Your task to perform on an android device: turn on showing notifications on the lock screen Image 0: 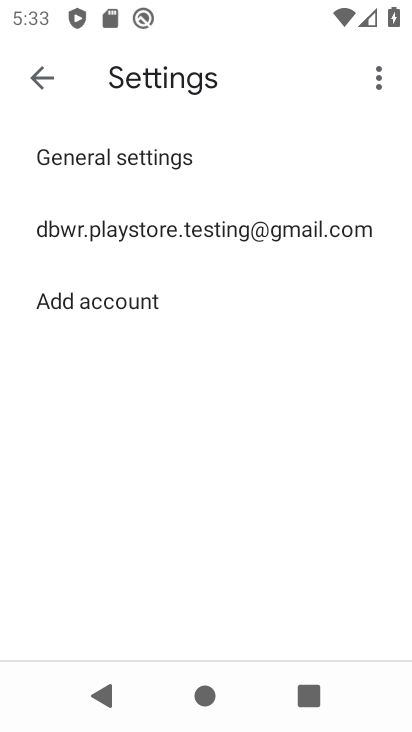
Step 0: press home button
Your task to perform on an android device: turn on showing notifications on the lock screen Image 1: 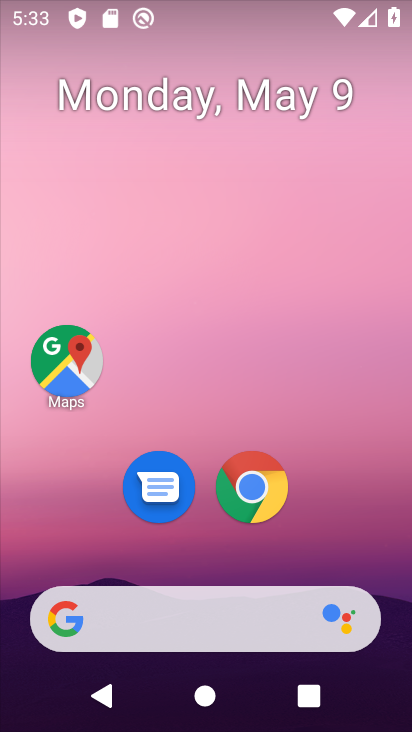
Step 1: drag from (265, 545) to (233, 59)
Your task to perform on an android device: turn on showing notifications on the lock screen Image 2: 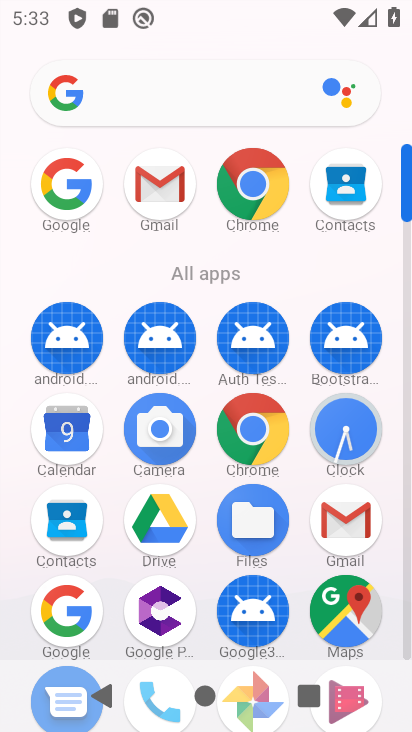
Step 2: drag from (297, 596) to (294, 219)
Your task to perform on an android device: turn on showing notifications on the lock screen Image 3: 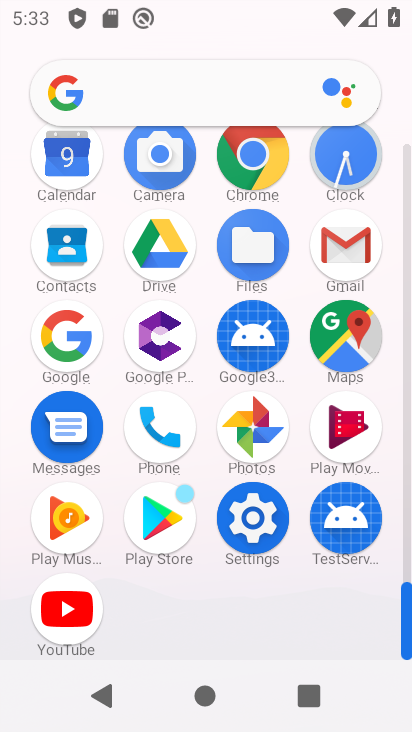
Step 3: drag from (218, 566) to (236, 236)
Your task to perform on an android device: turn on showing notifications on the lock screen Image 4: 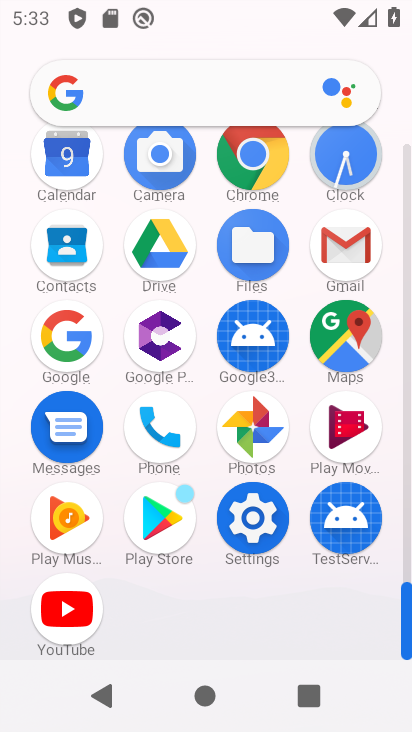
Step 4: drag from (216, 222) to (212, 476)
Your task to perform on an android device: turn on showing notifications on the lock screen Image 5: 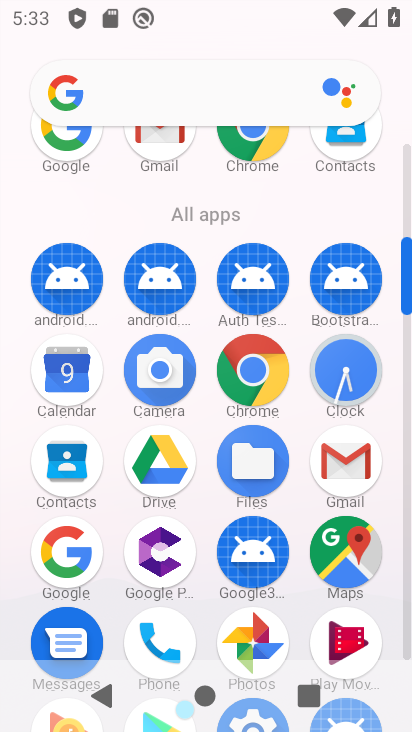
Step 5: drag from (198, 592) to (212, 205)
Your task to perform on an android device: turn on showing notifications on the lock screen Image 6: 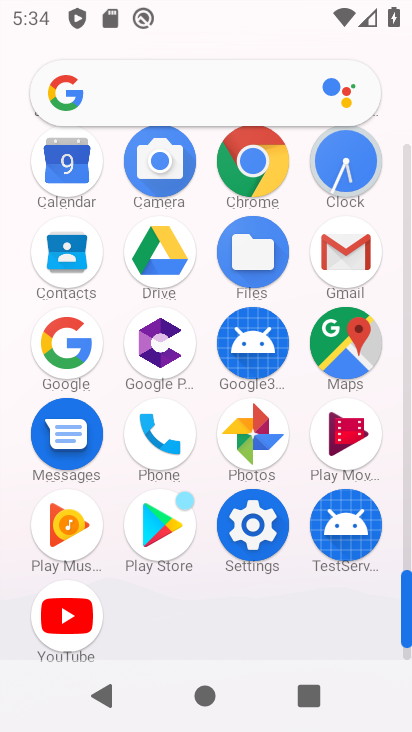
Step 6: click (246, 560)
Your task to perform on an android device: turn on showing notifications on the lock screen Image 7: 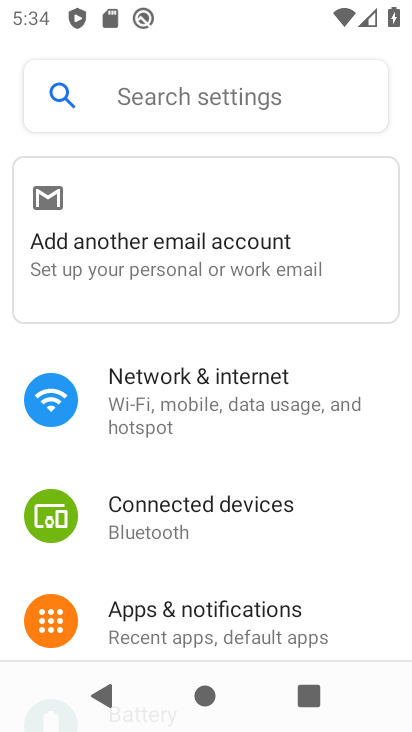
Step 7: click (235, 621)
Your task to perform on an android device: turn on showing notifications on the lock screen Image 8: 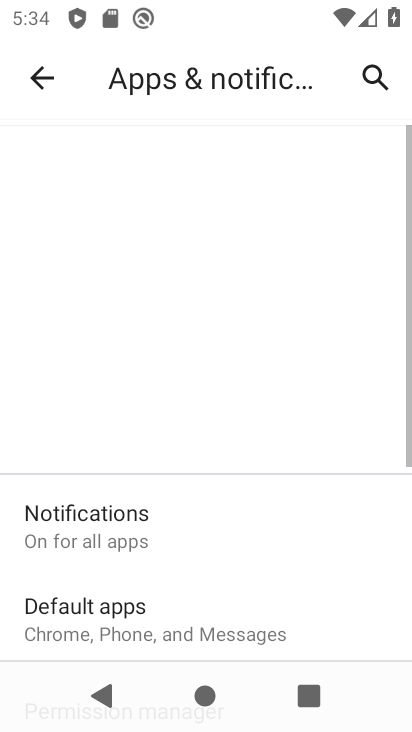
Step 8: drag from (209, 609) to (218, 179)
Your task to perform on an android device: turn on showing notifications on the lock screen Image 9: 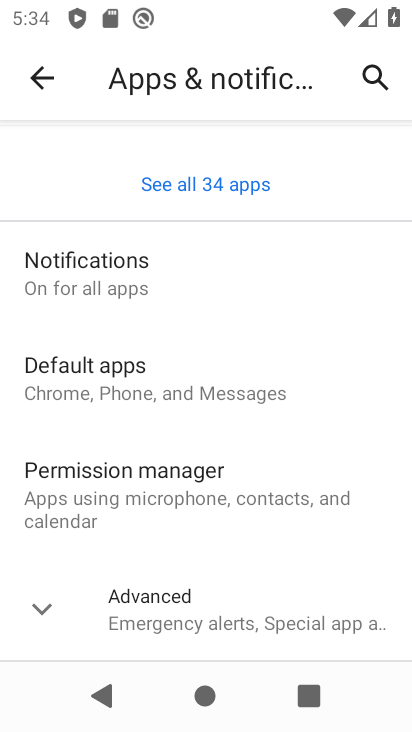
Step 9: click (114, 269)
Your task to perform on an android device: turn on showing notifications on the lock screen Image 10: 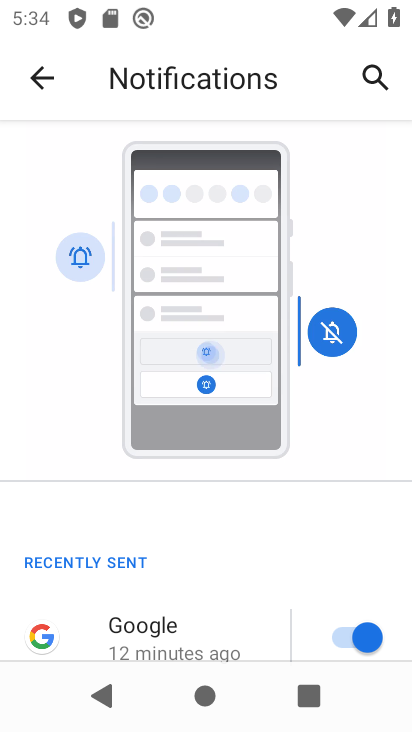
Step 10: drag from (202, 615) to (202, 95)
Your task to perform on an android device: turn on showing notifications on the lock screen Image 11: 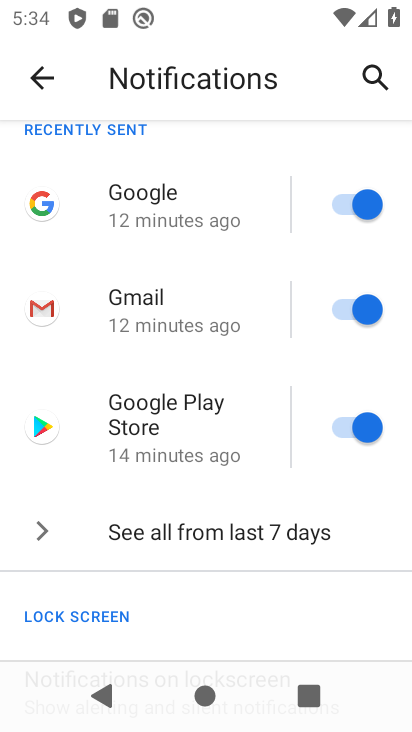
Step 11: drag from (196, 566) to (197, 181)
Your task to perform on an android device: turn on showing notifications on the lock screen Image 12: 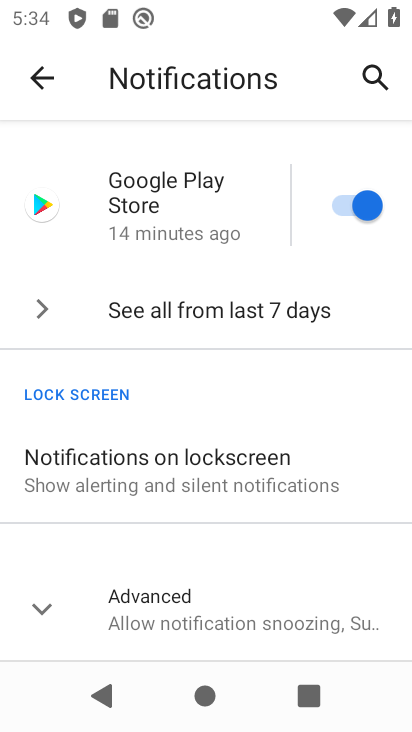
Step 12: click (83, 484)
Your task to perform on an android device: turn on showing notifications on the lock screen Image 13: 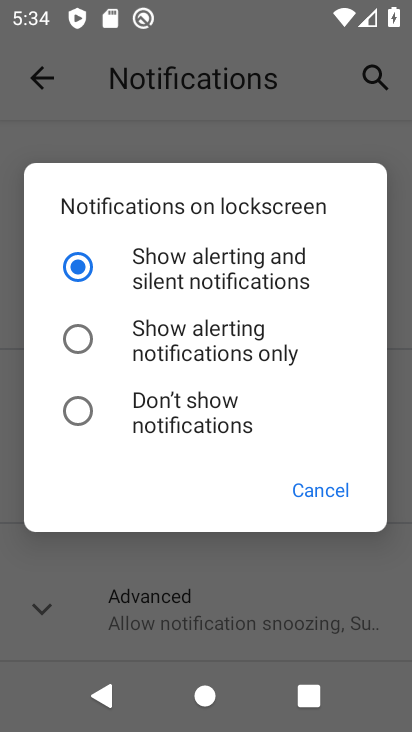
Step 13: click (69, 411)
Your task to perform on an android device: turn on showing notifications on the lock screen Image 14: 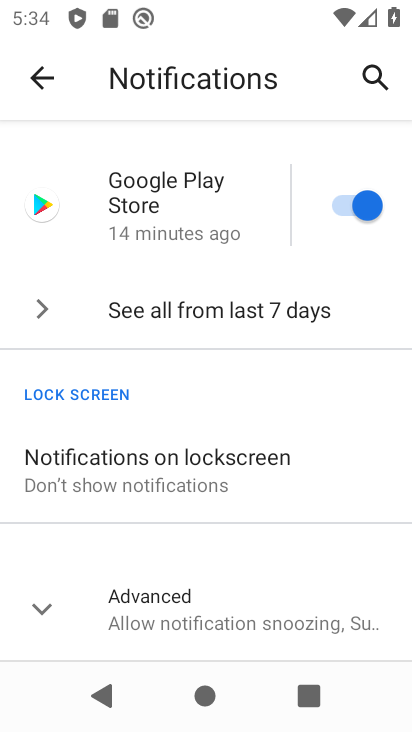
Step 14: click (185, 464)
Your task to perform on an android device: turn on showing notifications on the lock screen Image 15: 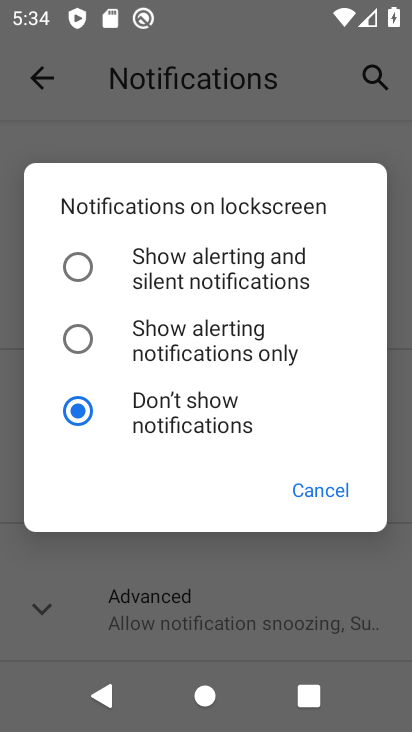
Step 15: click (74, 266)
Your task to perform on an android device: turn on showing notifications on the lock screen Image 16: 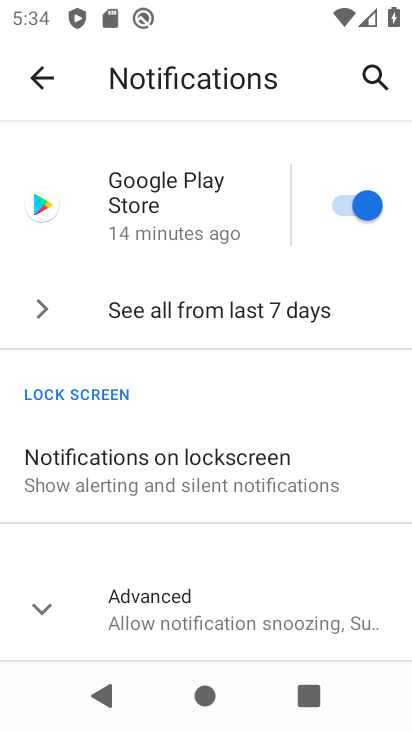
Step 16: task complete